Your task to perform on an android device: change alarm snooze length Image 0: 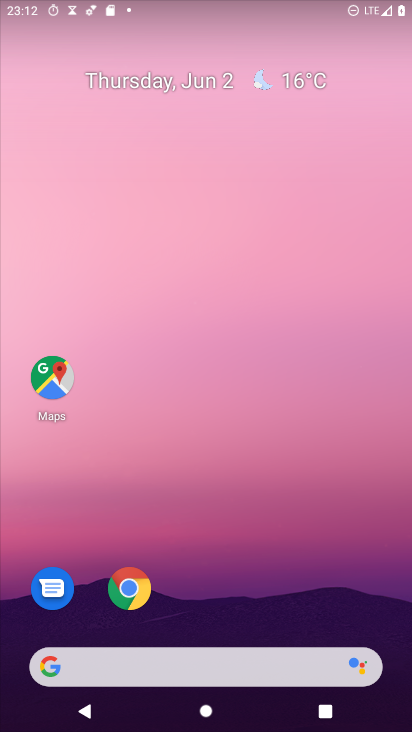
Step 0: drag from (257, 608) to (264, 125)
Your task to perform on an android device: change alarm snooze length Image 1: 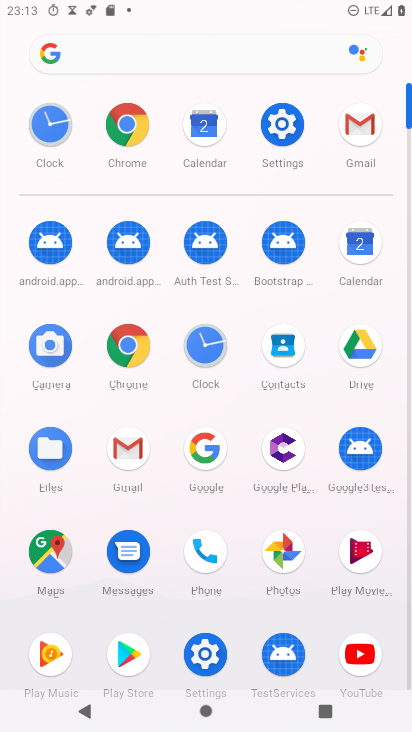
Step 1: click (204, 342)
Your task to perform on an android device: change alarm snooze length Image 2: 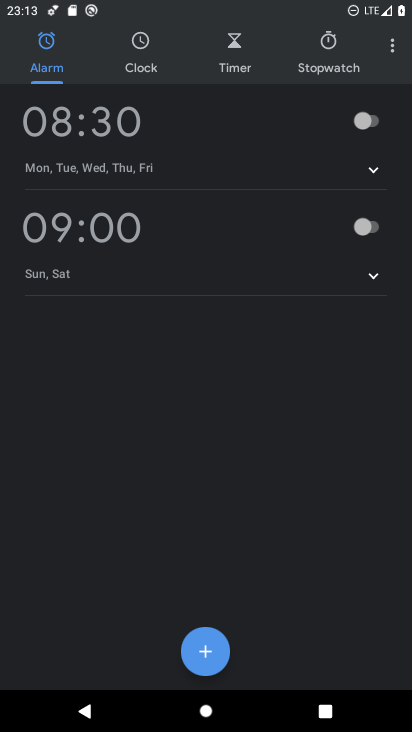
Step 2: click (389, 42)
Your task to perform on an android device: change alarm snooze length Image 3: 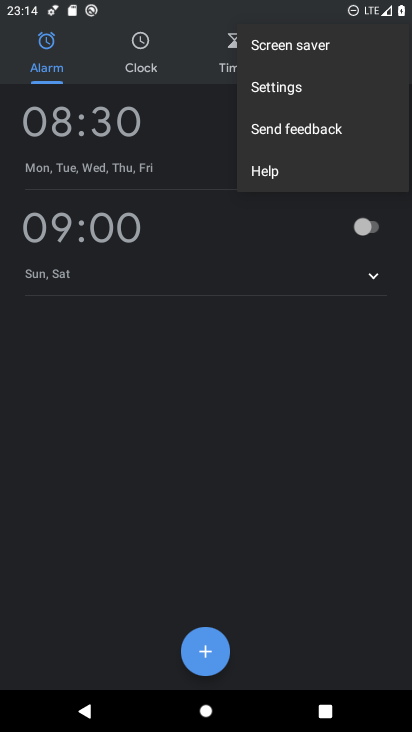
Step 3: click (280, 81)
Your task to perform on an android device: change alarm snooze length Image 4: 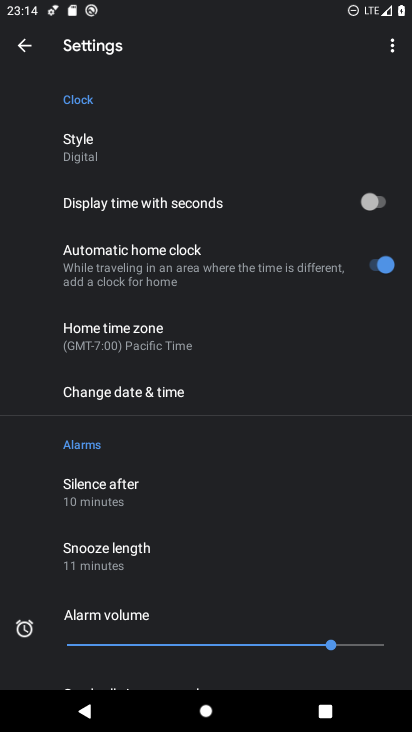
Step 4: click (92, 555)
Your task to perform on an android device: change alarm snooze length Image 5: 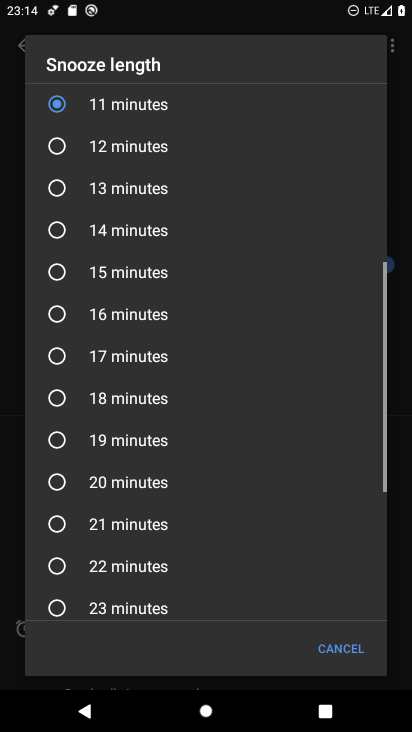
Step 5: click (46, 148)
Your task to perform on an android device: change alarm snooze length Image 6: 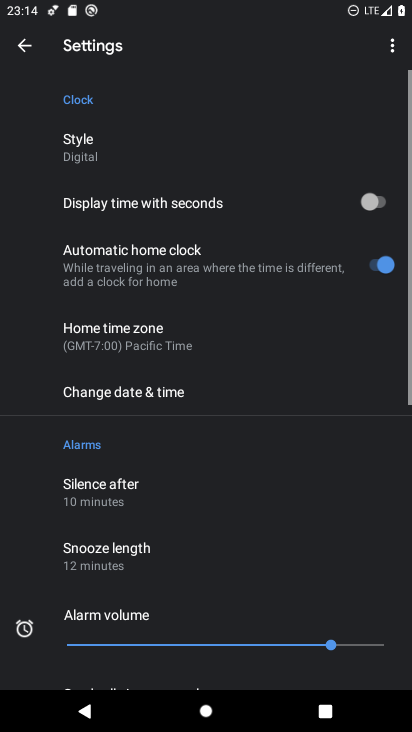
Step 6: task complete